Your task to perform on an android device: visit the assistant section in the google photos Image 0: 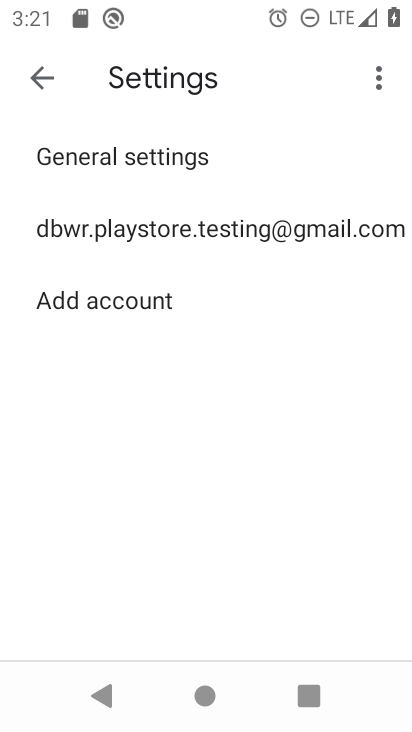
Step 0: press home button
Your task to perform on an android device: visit the assistant section in the google photos Image 1: 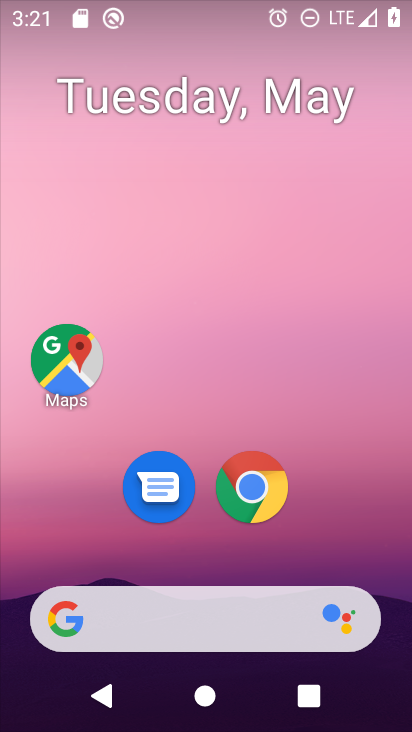
Step 1: drag from (54, 682) to (202, 229)
Your task to perform on an android device: visit the assistant section in the google photos Image 2: 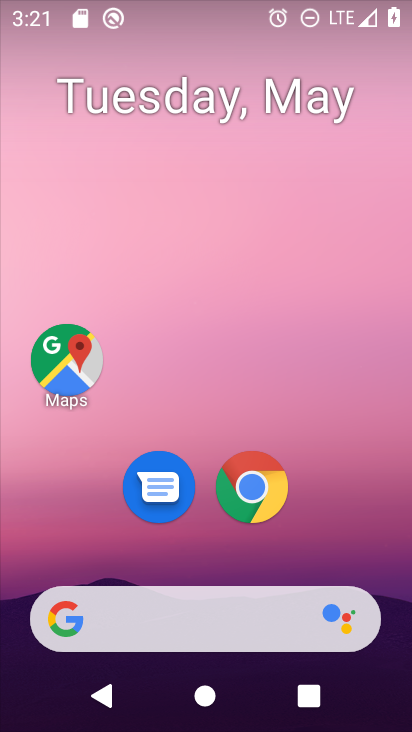
Step 2: drag from (3, 650) to (225, 174)
Your task to perform on an android device: visit the assistant section in the google photos Image 3: 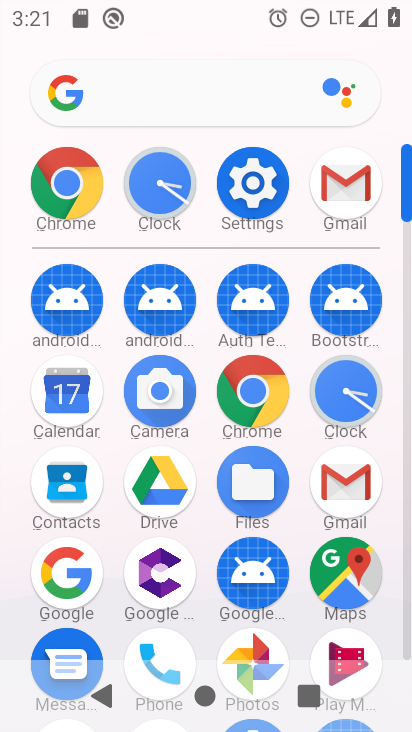
Step 3: click (234, 648)
Your task to perform on an android device: visit the assistant section in the google photos Image 4: 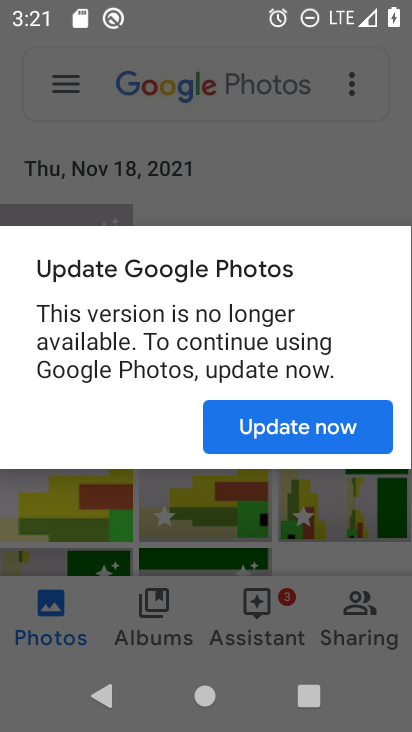
Step 4: click (352, 419)
Your task to perform on an android device: visit the assistant section in the google photos Image 5: 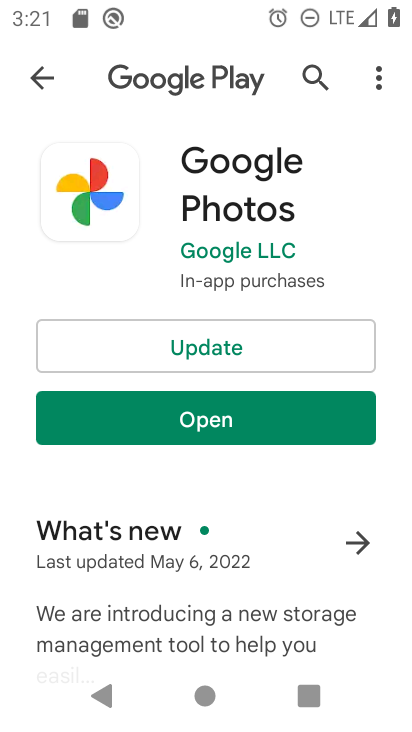
Step 5: click (284, 424)
Your task to perform on an android device: visit the assistant section in the google photos Image 6: 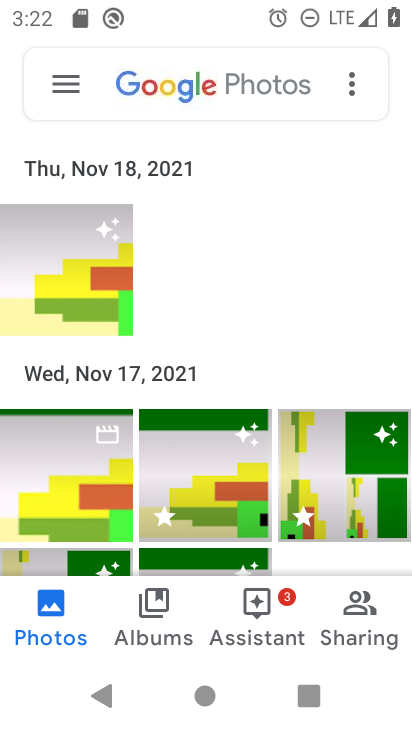
Step 6: click (263, 608)
Your task to perform on an android device: visit the assistant section in the google photos Image 7: 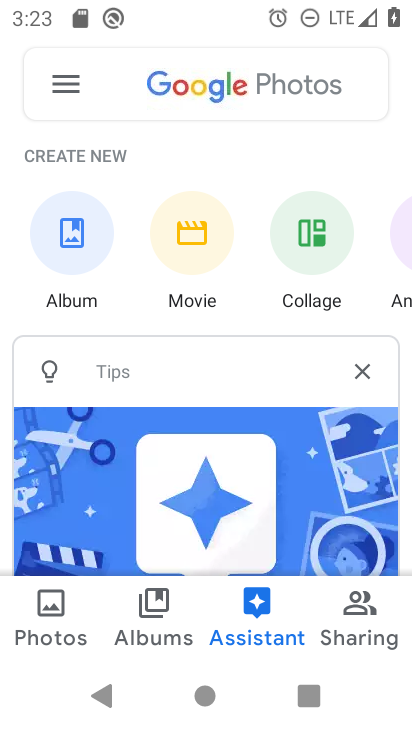
Step 7: task complete